Your task to perform on an android device: Go to settings Image 0: 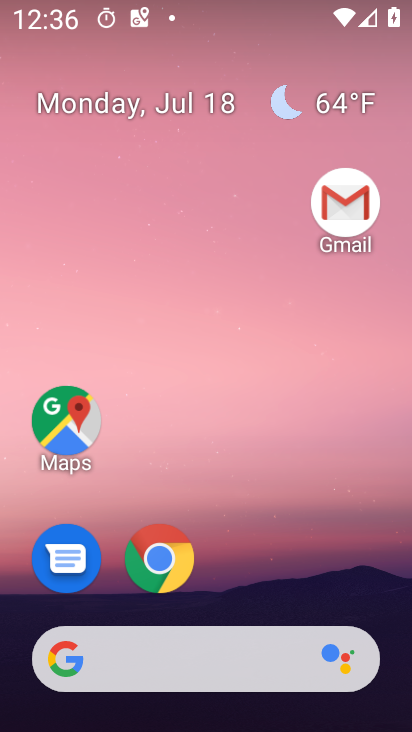
Step 0: drag from (302, 548) to (305, 47)
Your task to perform on an android device: Go to settings Image 1: 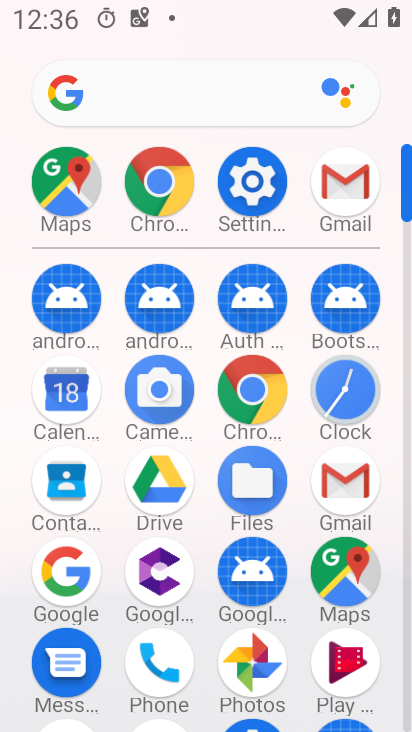
Step 1: click (258, 183)
Your task to perform on an android device: Go to settings Image 2: 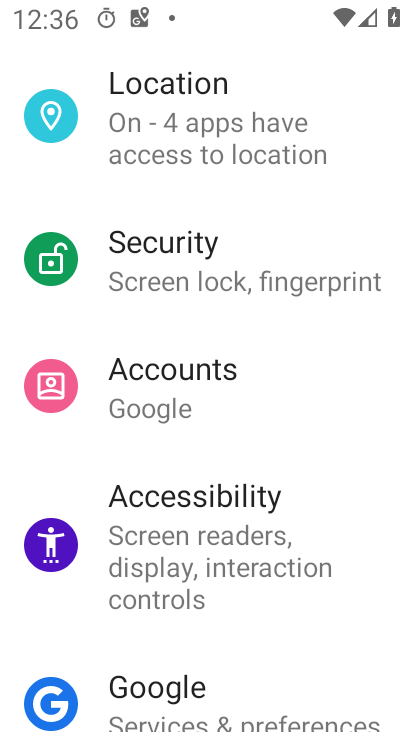
Step 2: task complete